Your task to perform on an android device: Search for flights from Helsinki to Seoul Image 0: 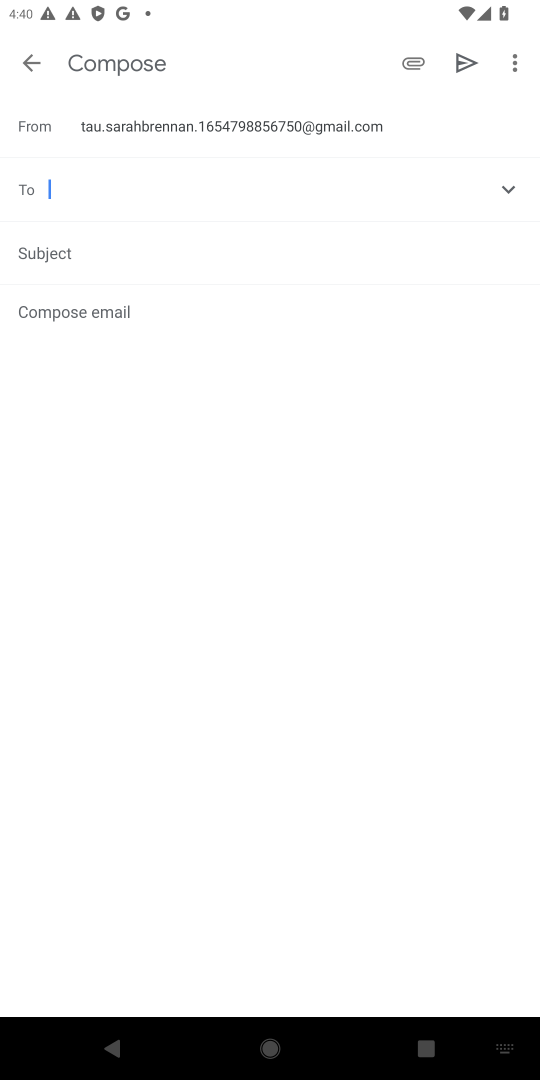
Step 0: press home button
Your task to perform on an android device: Search for flights from Helsinki to Seoul Image 1: 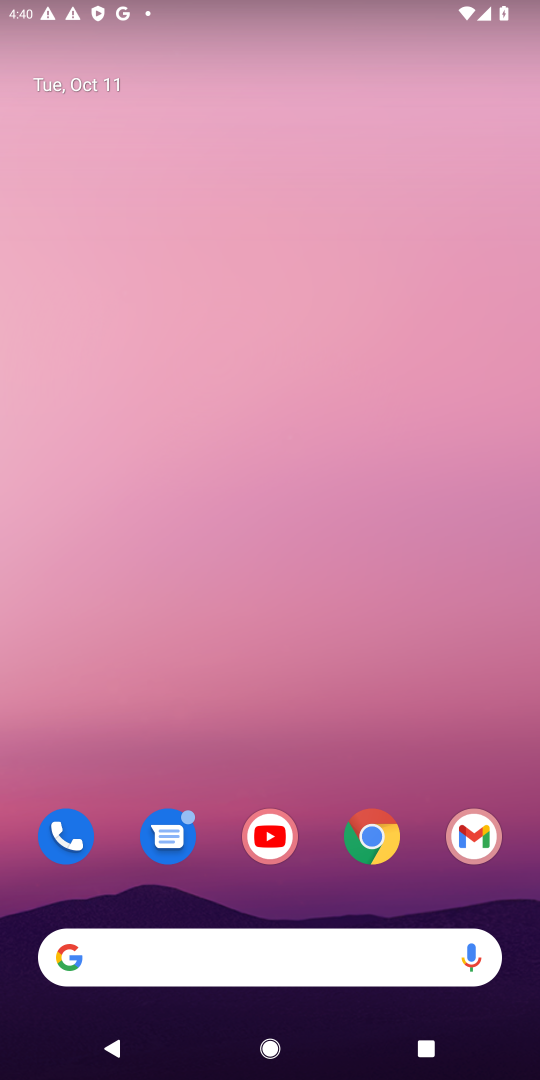
Step 1: click (370, 844)
Your task to perform on an android device: Search for flights from Helsinki to Seoul Image 2: 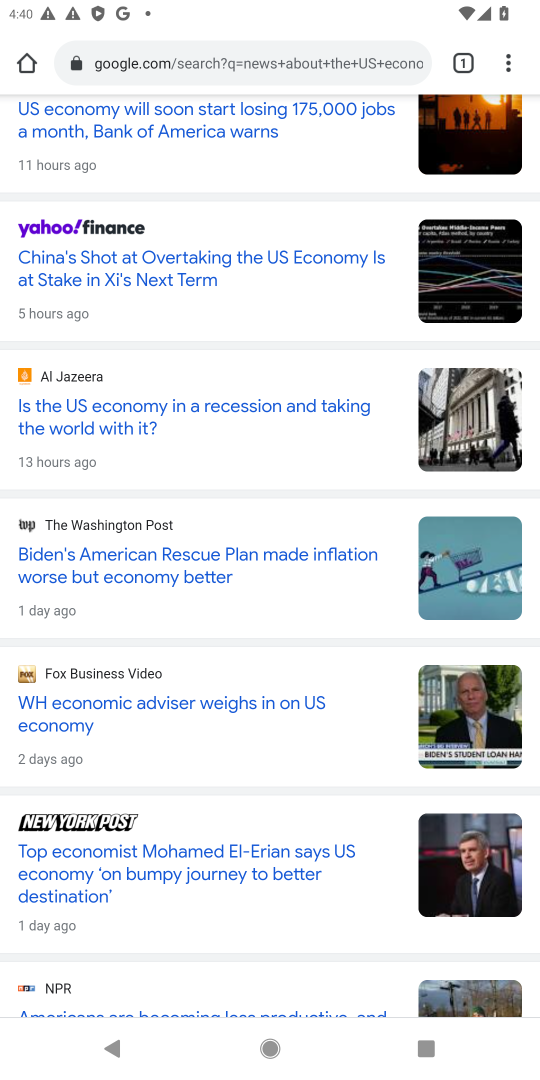
Step 2: click (341, 66)
Your task to perform on an android device: Search for flights from Helsinki to Seoul Image 3: 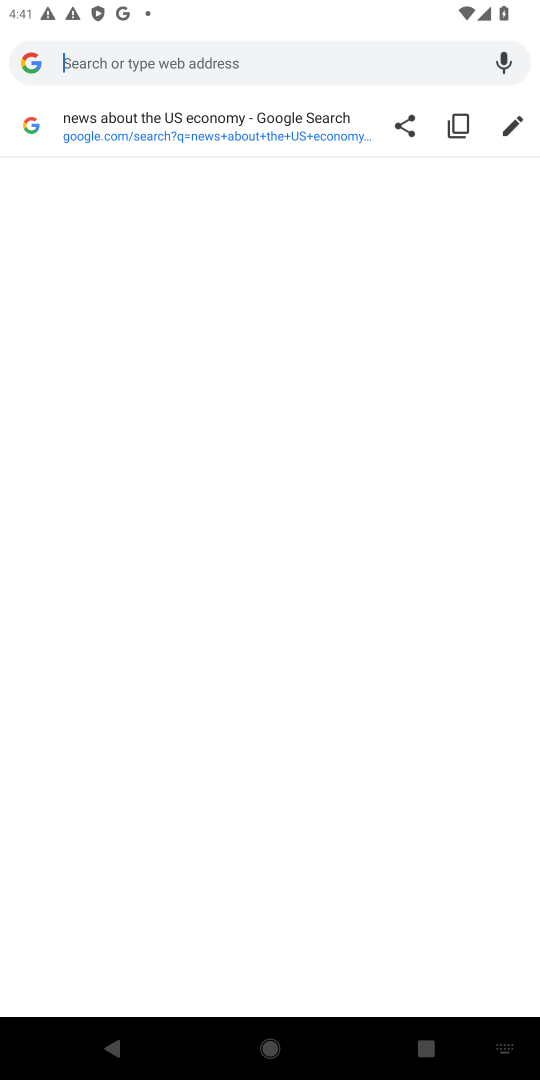
Step 3: type "flights from Helsinki to Seoul"
Your task to perform on an android device: Search for flights from Helsinki to Seoul Image 4: 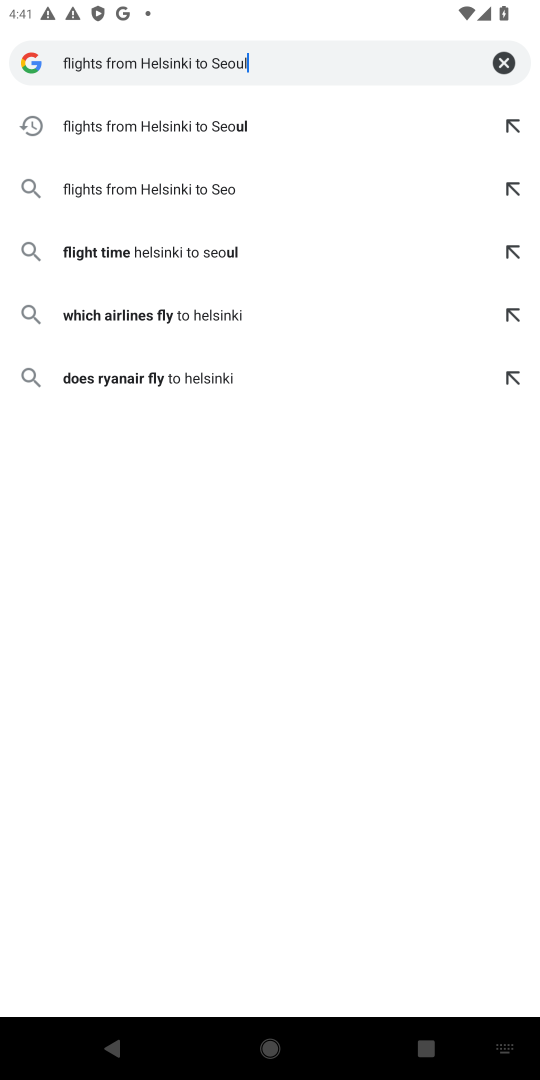
Step 4: press enter
Your task to perform on an android device: Search for flights from Helsinki to Seoul Image 5: 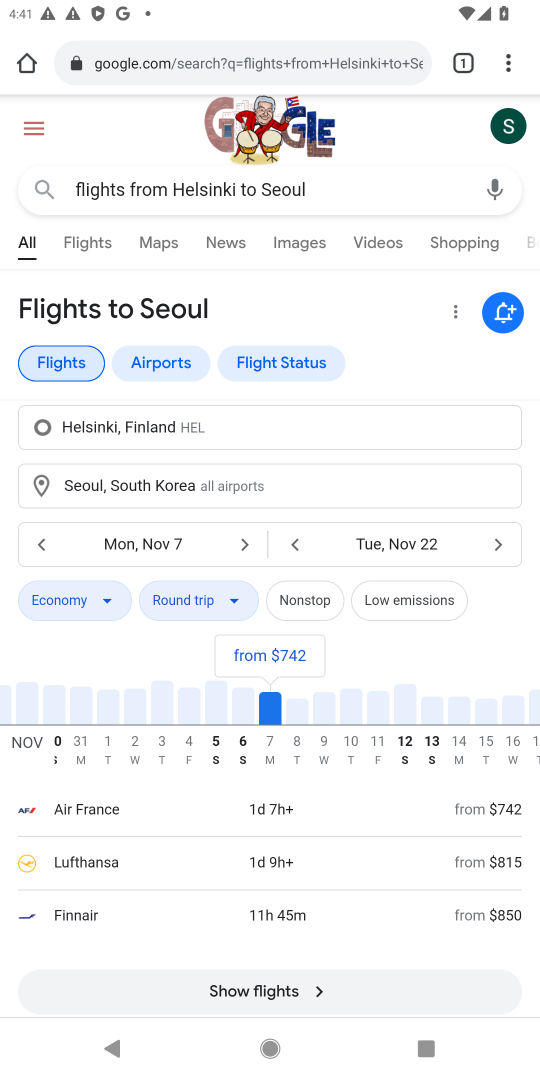
Step 5: drag from (283, 874) to (505, 376)
Your task to perform on an android device: Search for flights from Helsinki to Seoul Image 6: 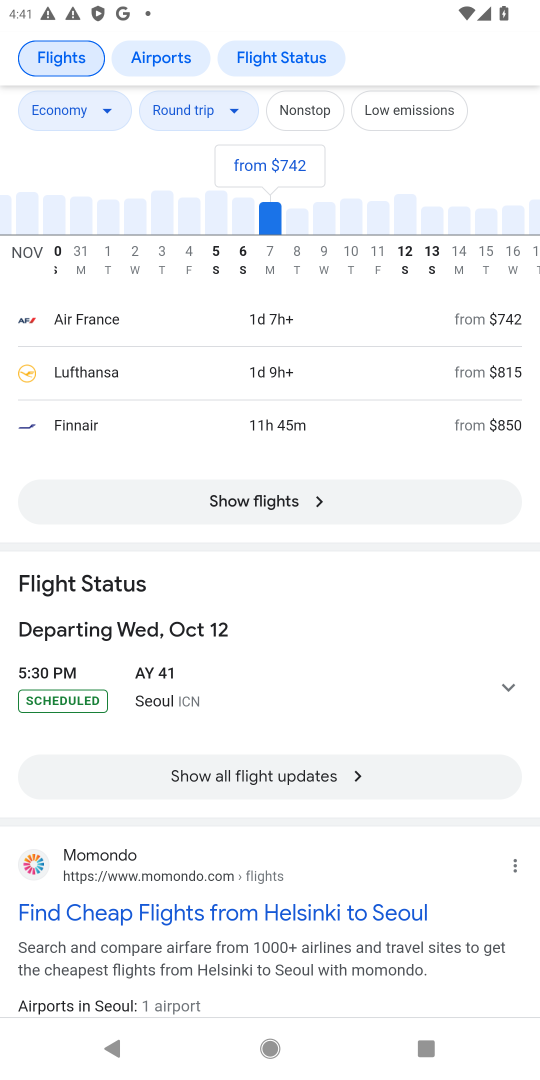
Step 6: click (263, 781)
Your task to perform on an android device: Search for flights from Helsinki to Seoul Image 7: 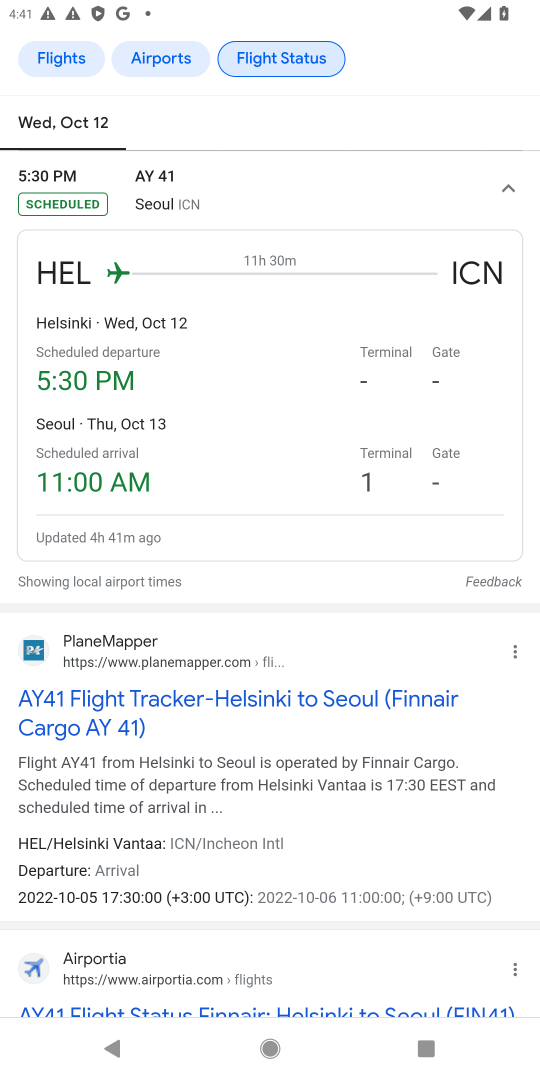
Step 7: drag from (279, 629) to (529, 246)
Your task to perform on an android device: Search for flights from Helsinki to Seoul Image 8: 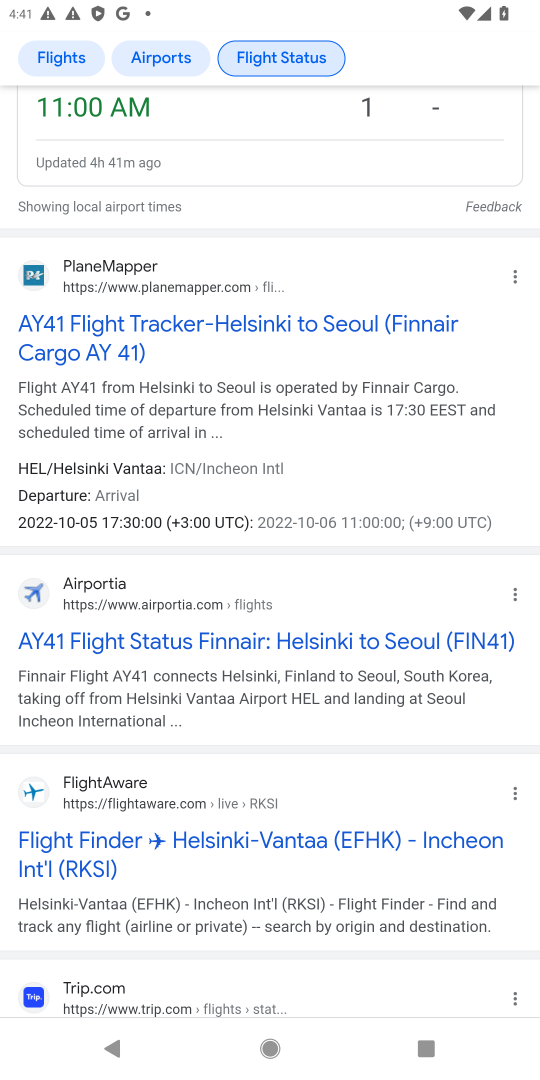
Step 8: drag from (277, 267) to (328, 834)
Your task to perform on an android device: Search for flights from Helsinki to Seoul Image 9: 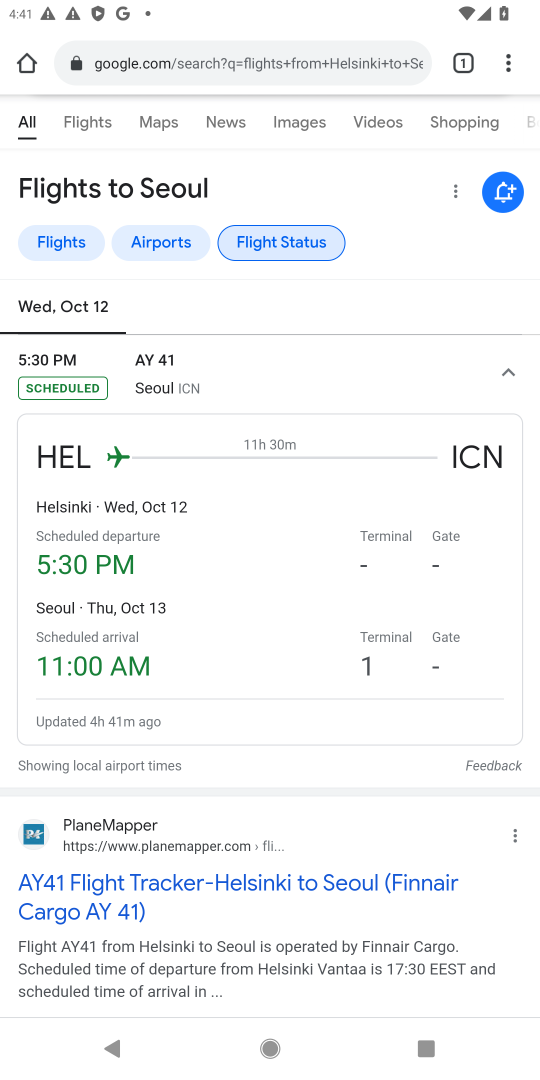
Step 9: click (63, 233)
Your task to perform on an android device: Search for flights from Helsinki to Seoul Image 10: 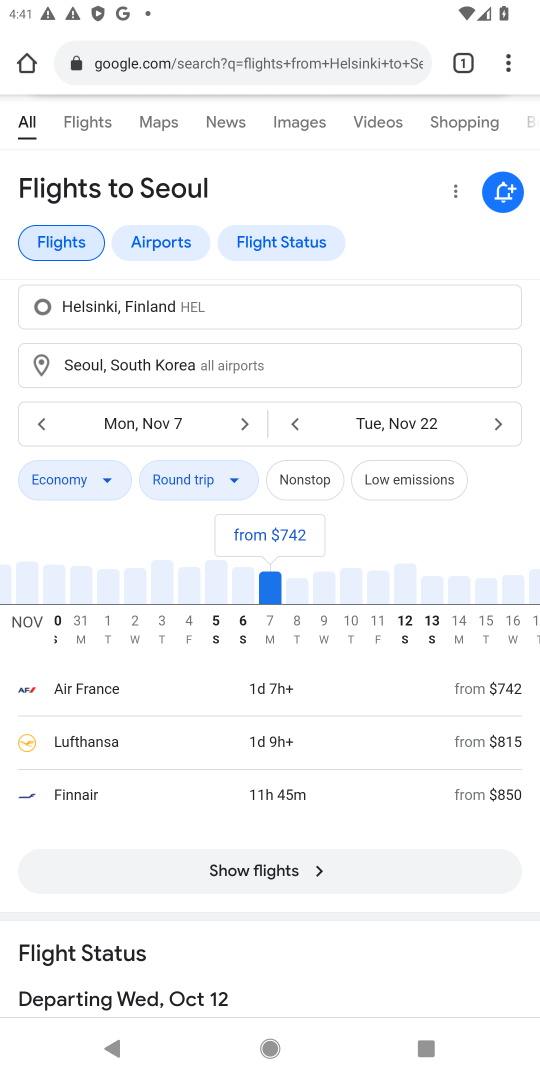
Step 10: drag from (281, 839) to (536, 280)
Your task to perform on an android device: Search for flights from Helsinki to Seoul Image 11: 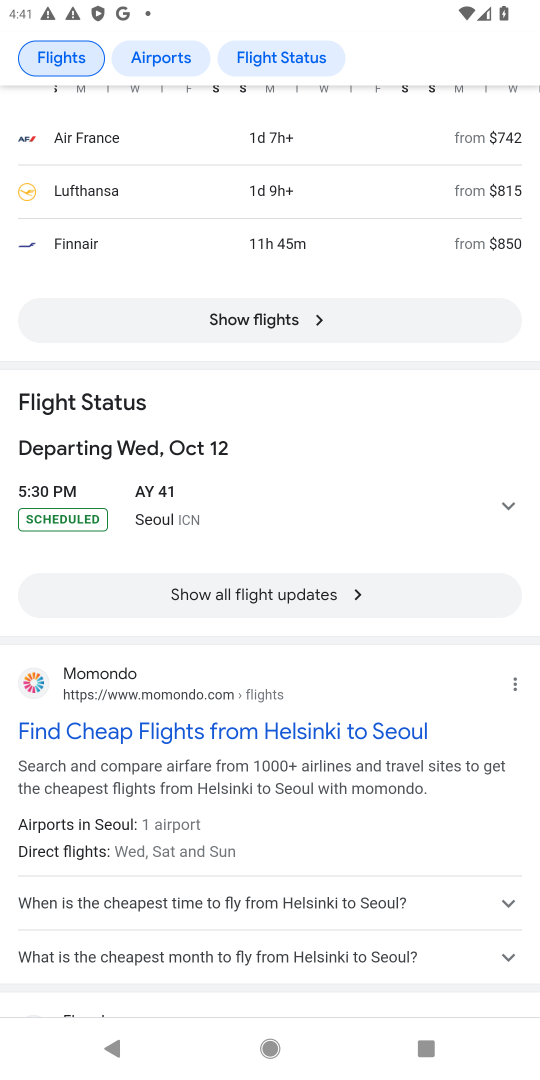
Step 11: click (248, 595)
Your task to perform on an android device: Search for flights from Helsinki to Seoul Image 12: 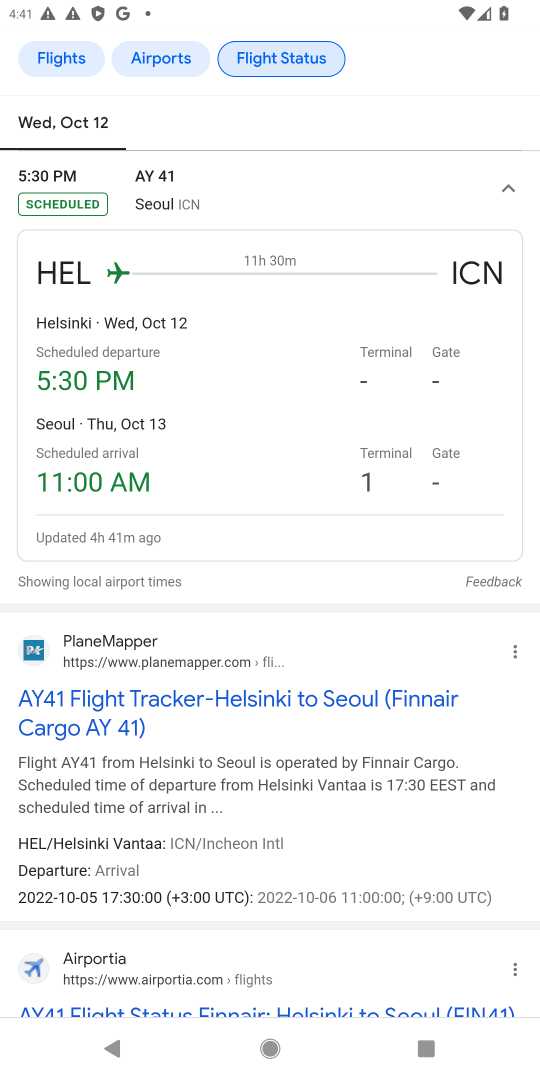
Step 12: task complete